Your task to perform on an android device: Open network settings Image 0: 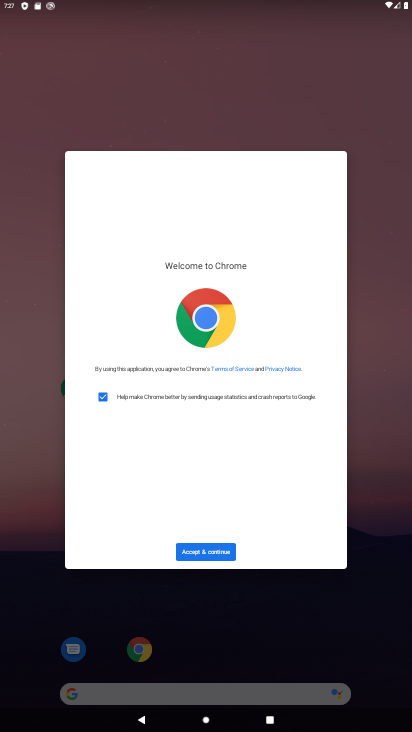
Step 0: press home button
Your task to perform on an android device: Open network settings Image 1: 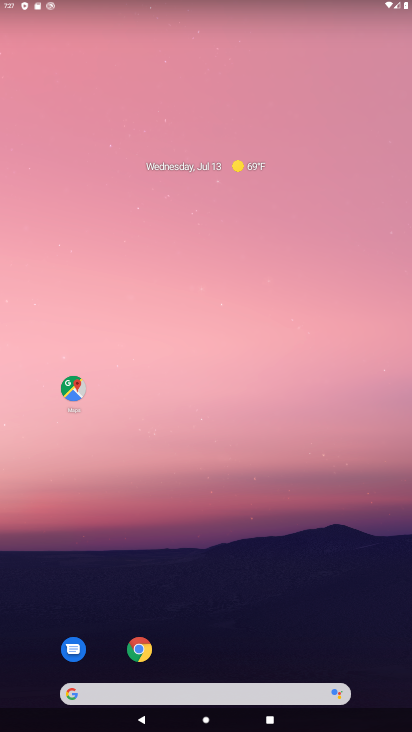
Step 1: drag from (224, 693) to (209, 344)
Your task to perform on an android device: Open network settings Image 2: 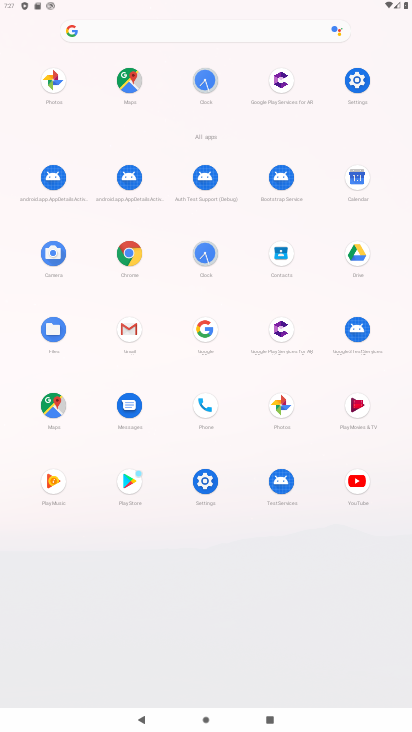
Step 2: click (355, 84)
Your task to perform on an android device: Open network settings Image 3: 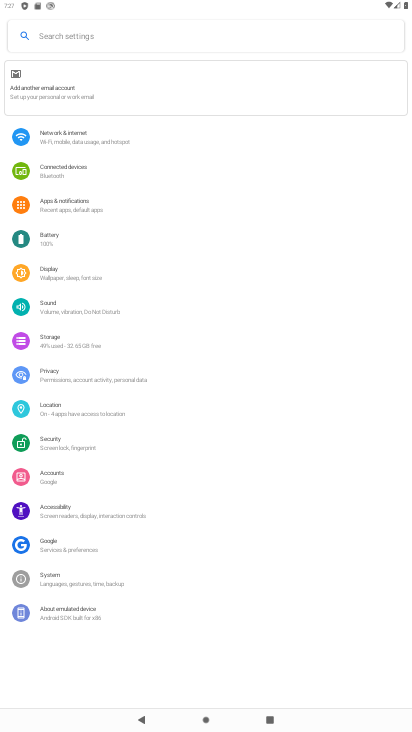
Step 3: click (99, 135)
Your task to perform on an android device: Open network settings Image 4: 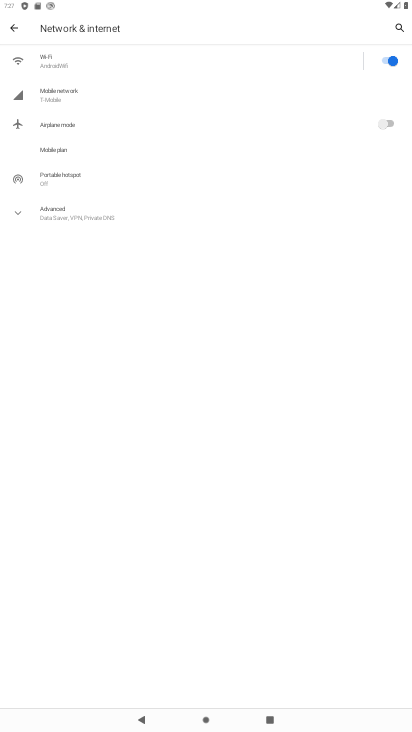
Step 4: task complete